Your task to perform on an android device: check out phone information Image 0: 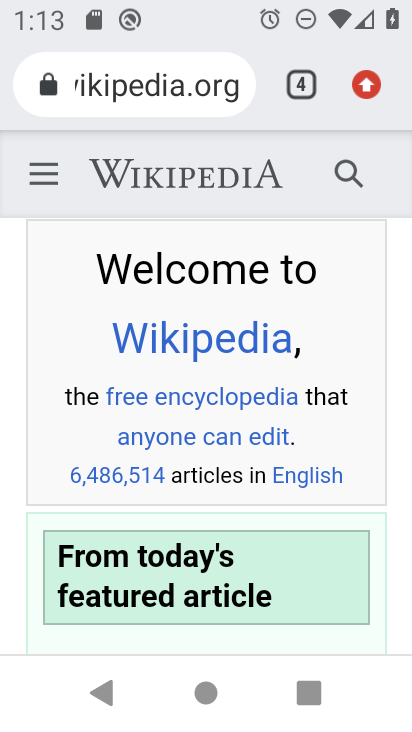
Step 0: drag from (223, 20) to (130, 514)
Your task to perform on an android device: check out phone information Image 1: 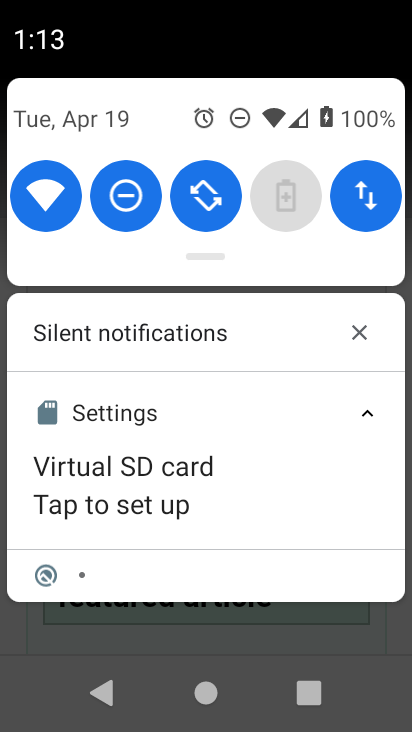
Step 1: drag from (185, 86) to (126, 547)
Your task to perform on an android device: check out phone information Image 2: 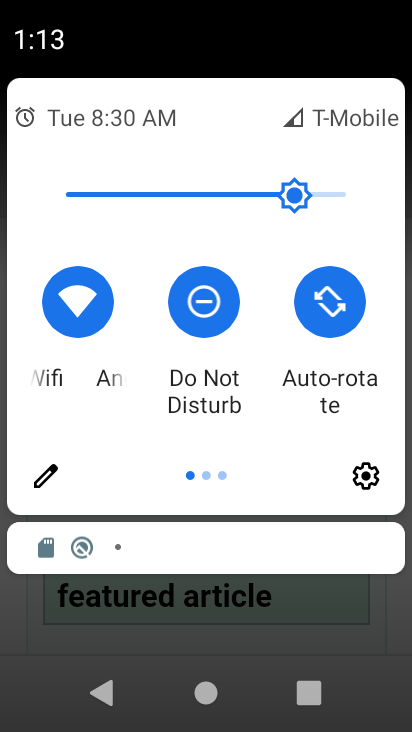
Step 2: click (382, 484)
Your task to perform on an android device: check out phone information Image 3: 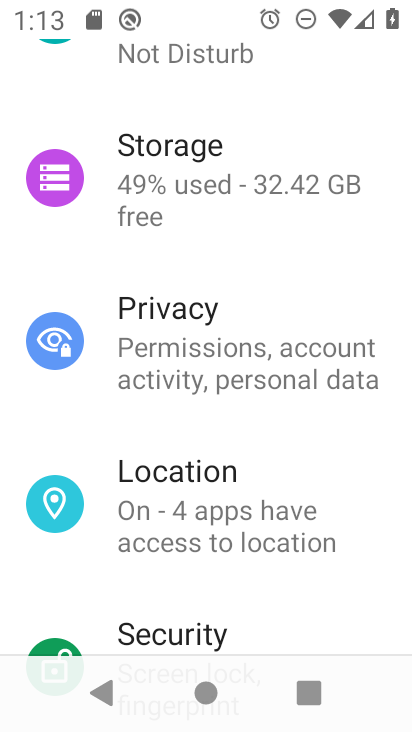
Step 3: drag from (84, 599) to (271, 31)
Your task to perform on an android device: check out phone information Image 4: 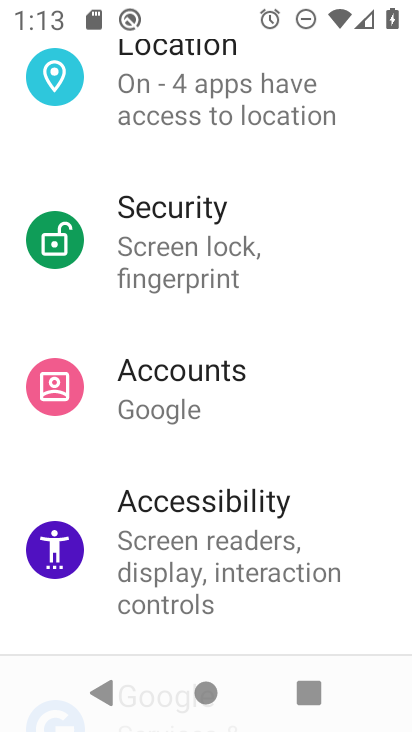
Step 4: drag from (121, 620) to (203, 46)
Your task to perform on an android device: check out phone information Image 5: 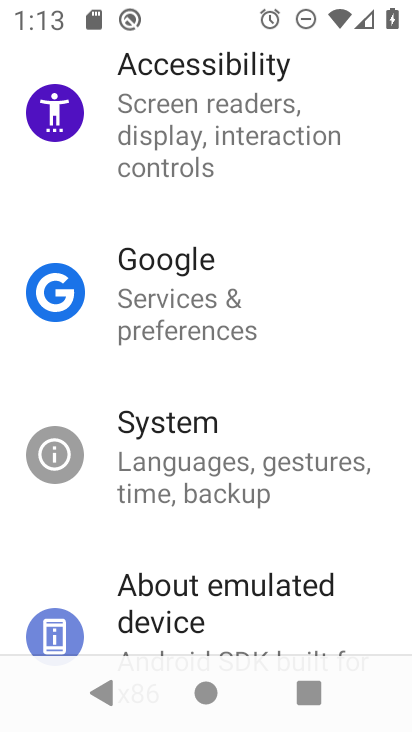
Step 5: drag from (98, 519) to (201, 30)
Your task to perform on an android device: check out phone information Image 6: 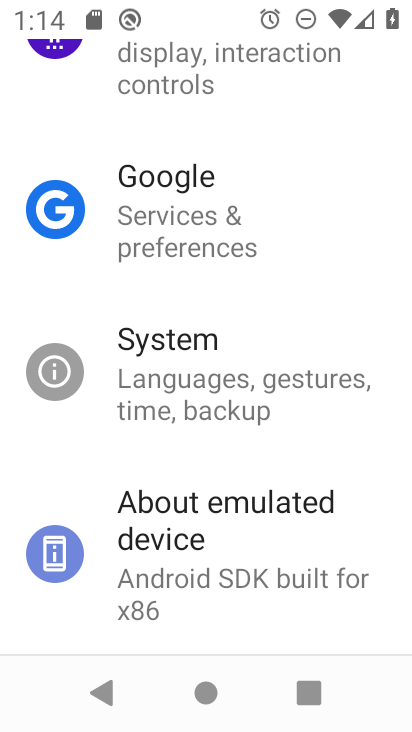
Step 6: click (80, 566)
Your task to perform on an android device: check out phone information Image 7: 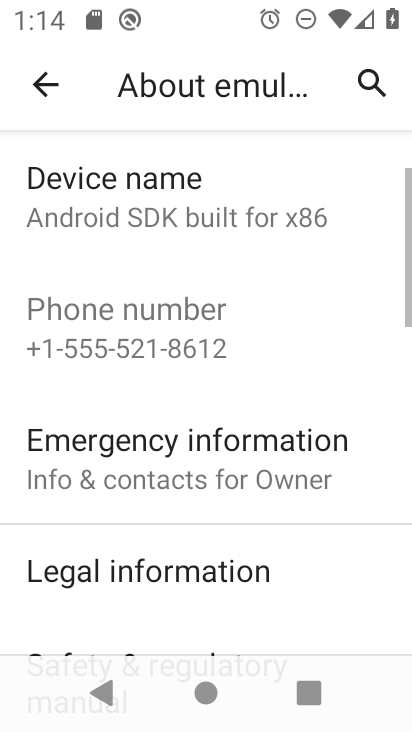
Step 7: task complete